Your task to perform on an android device: turn off data saver in the chrome app Image 0: 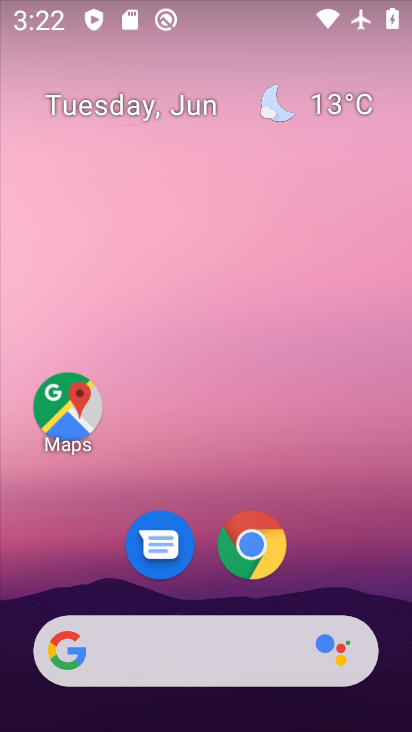
Step 0: drag from (228, 234) to (382, 13)
Your task to perform on an android device: turn off data saver in the chrome app Image 1: 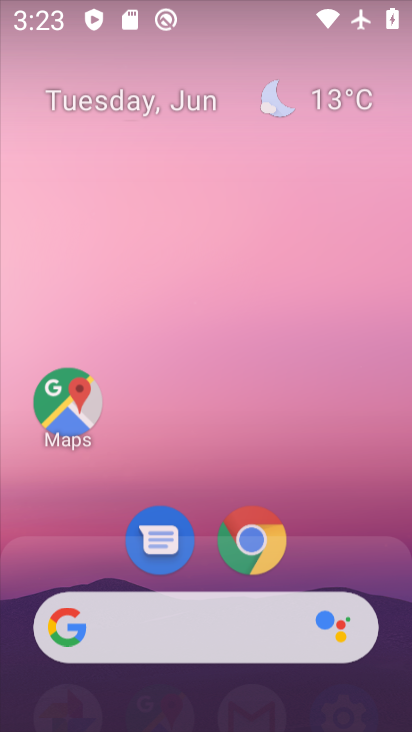
Step 1: drag from (260, 626) to (412, 284)
Your task to perform on an android device: turn off data saver in the chrome app Image 2: 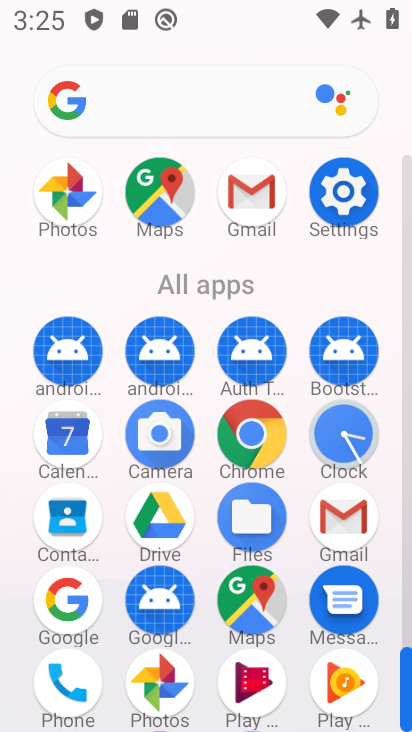
Step 2: click (240, 434)
Your task to perform on an android device: turn off data saver in the chrome app Image 3: 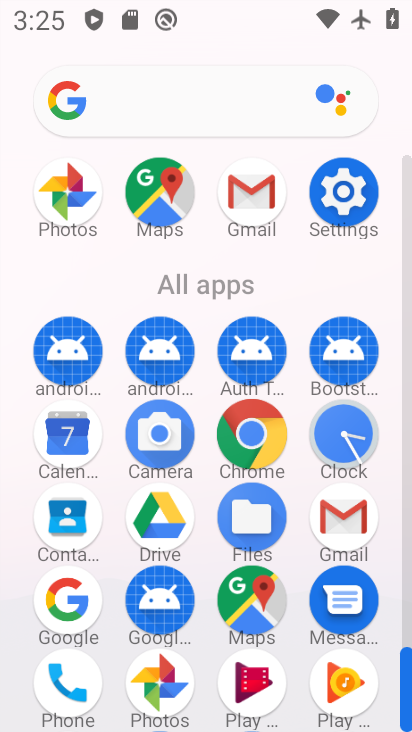
Step 3: click (240, 434)
Your task to perform on an android device: turn off data saver in the chrome app Image 4: 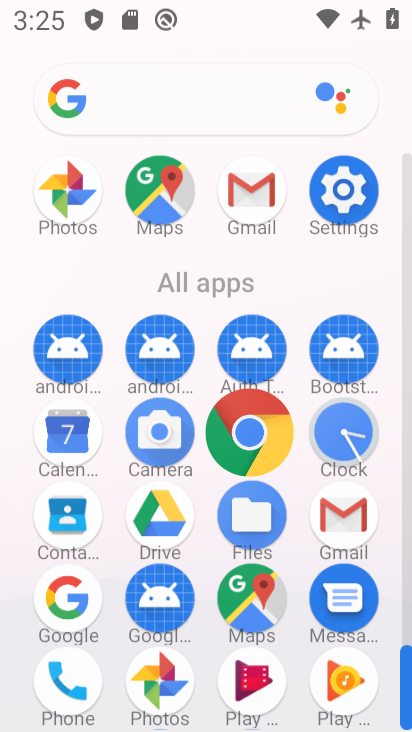
Step 4: click (241, 435)
Your task to perform on an android device: turn off data saver in the chrome app Image 5: 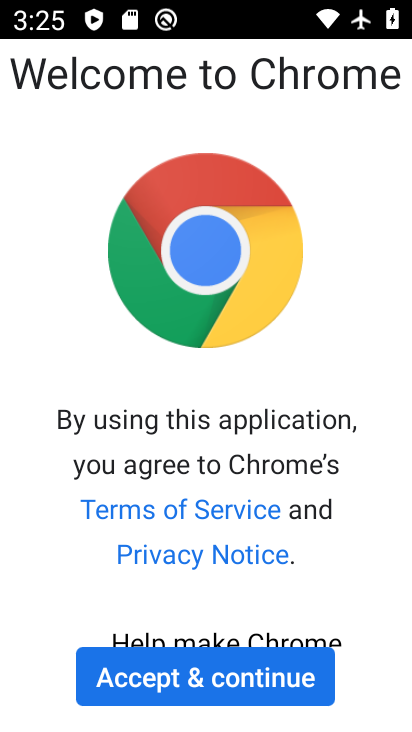
Step 5: click (226, 681)
Your task to perform on an android device: turn off data saver in the chrome app Image 6: 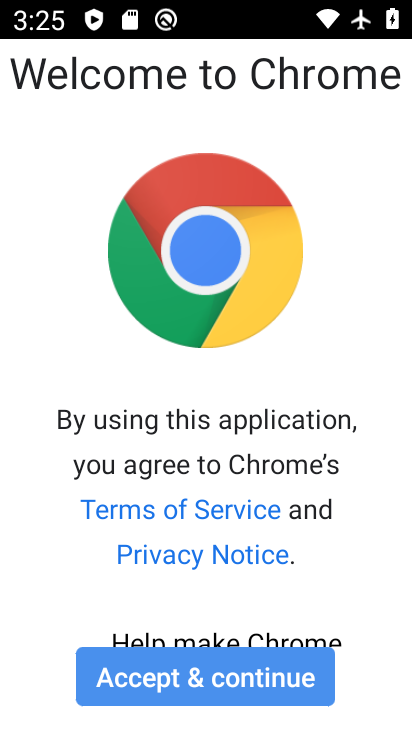
Step 6: click (226, 681)
Your task to perform on an android device: turn off data saver in the chrome app Image 7: 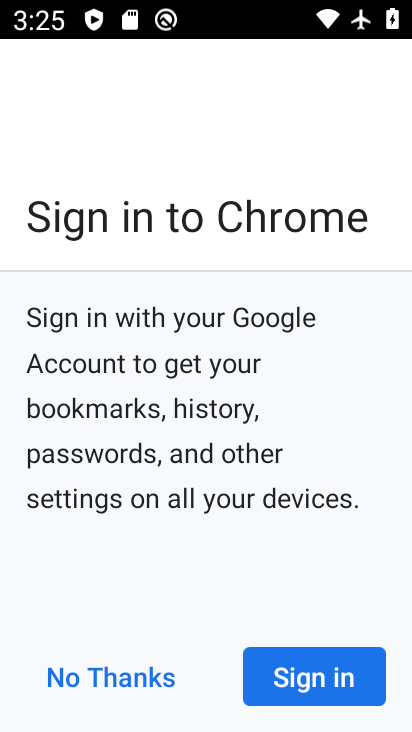
Step 7: click (226, 681)
Your task to perform on an android device: turn off data saver in the chrome app Image 8: 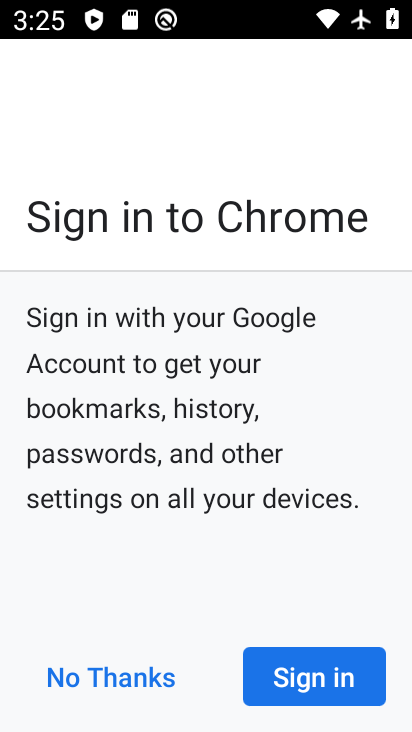
Step 8: click (226, 681)
Your task to perform on an android device: turn off data saver in the chrome app Image 9: 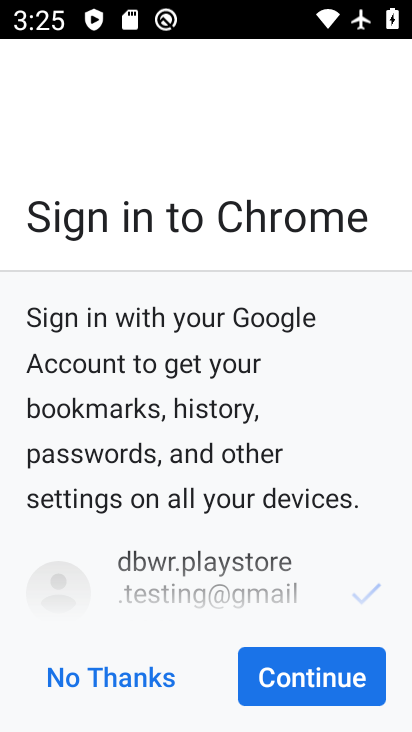
Step 9: click (227, 682)
Your task to perform on an android device: turn off data saver in the chrome app Image 10: 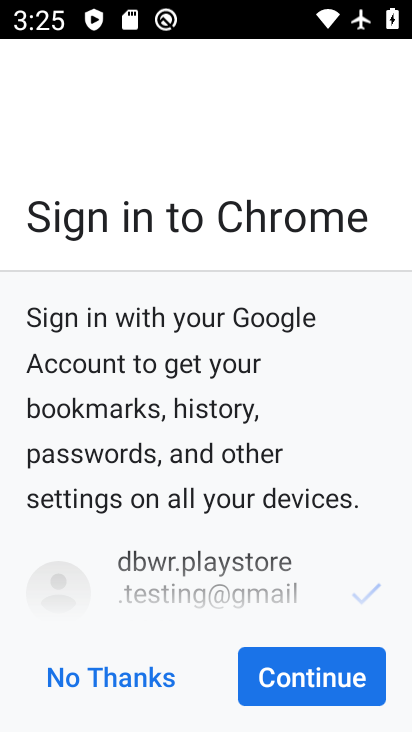
Step 10: click (227, 682)
Your task to perform on an android device: turn off data saver in the chrome app Image 11: 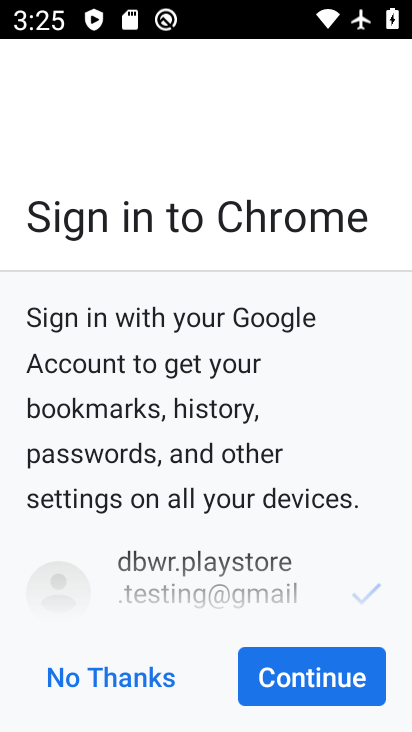
Step 11: click (292, 670)
Your task to perform on an android device: turn off data saver in the chrome app Image 12: 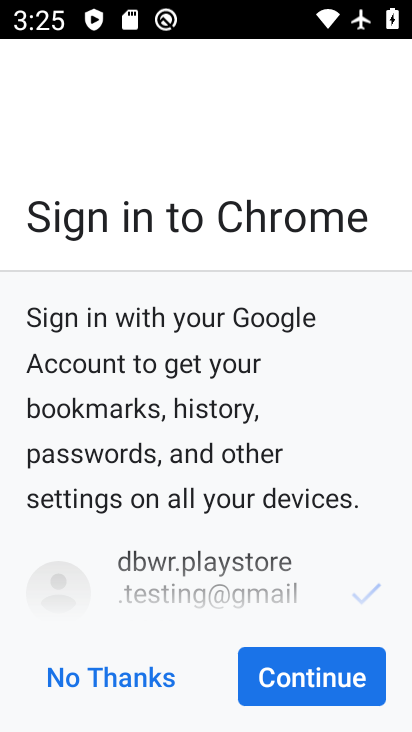
Step 12: click (337, 697)
Your task to perform on an android device: turn off data saver in the chrome app Image 13: 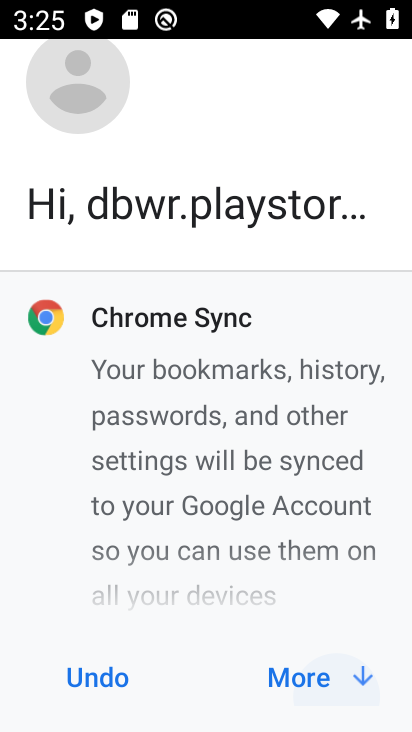
Step 13: click (341, 691)
Your task to perform on an android device: turn off data saver in the chrome app Image 14: 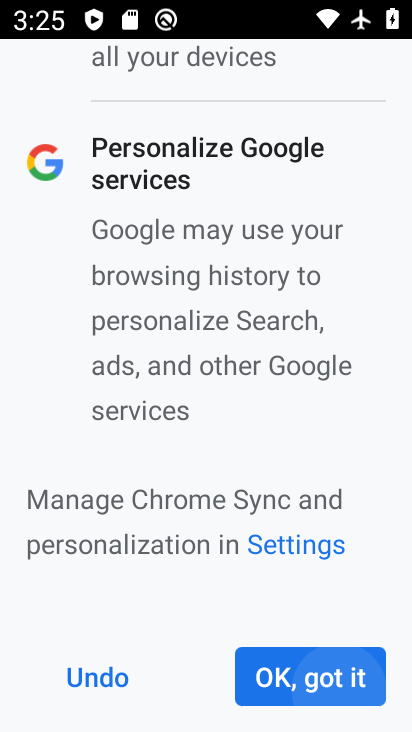
Step 14: click (346, 691)
Your task to perform on an android device: turn off data saver in the chrome app Image 15: 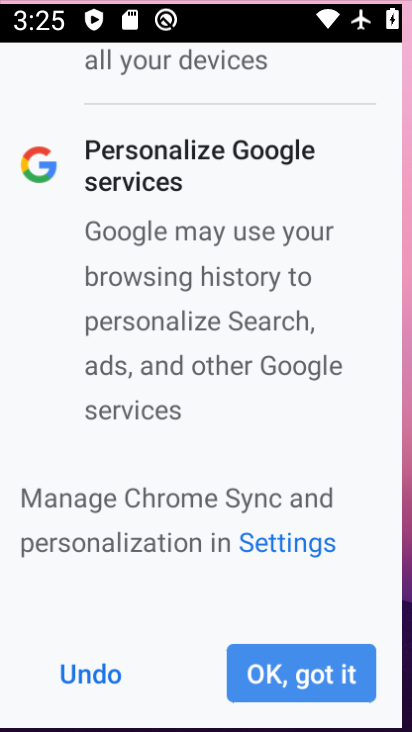
Step 15: click (344, 688)
Your task to perform on an android device: turn off data saver in the chrome app Image 16: 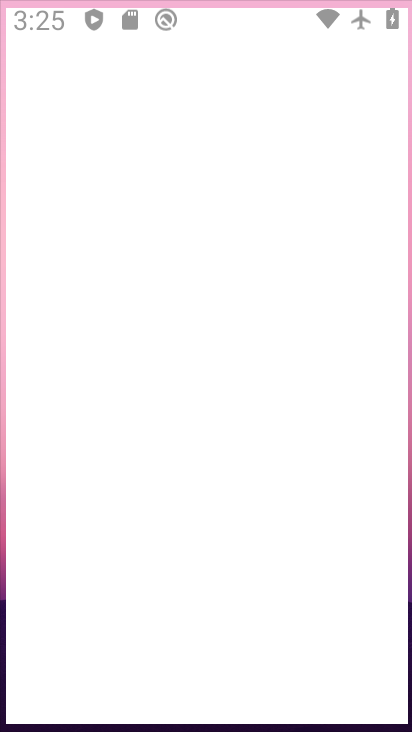
Step 16: click (341, 683)
Your task to perform on an android device: turn off data saver in the chrome app Image 17: 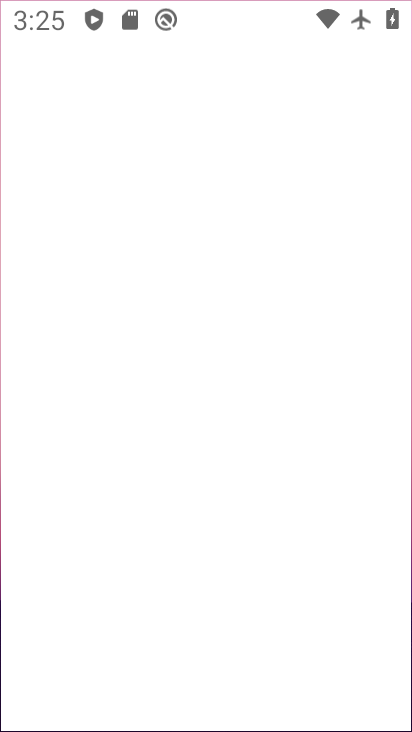
Step 17: click (341, 680)
Your task to perform on an android device: turn off data saver in the chrome app Image 18: 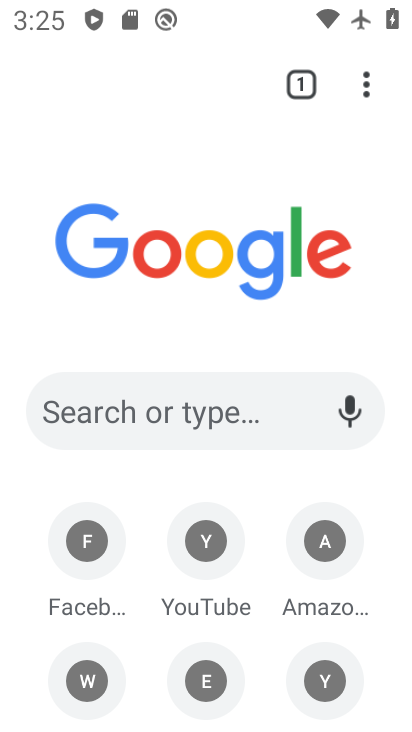
Step 18: drag from (368, 94) to (68, 591)
Your task to perform on an android device: turn off data saver in the chrome app Image 19: 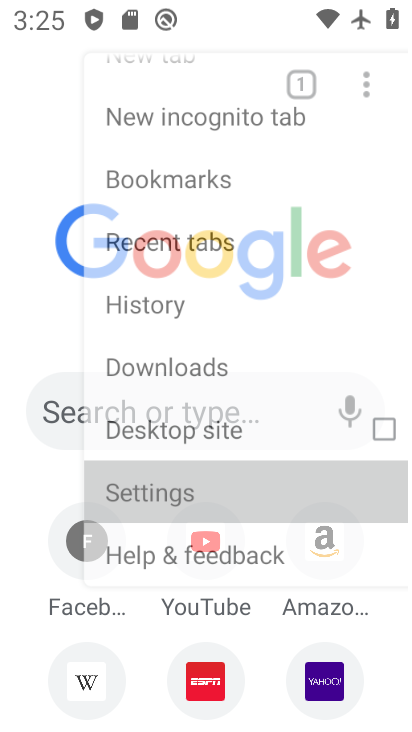
Step 19: click (64, 594)
Your task to perform on an android device: turn off data saver in the chrome app Image 20: 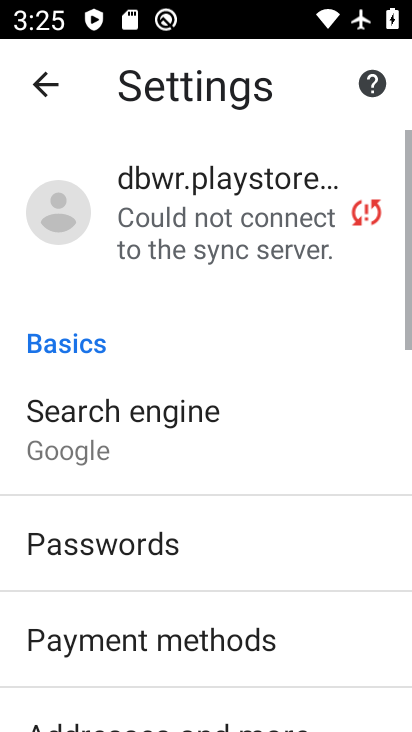
Step 20: click (146, 125)
Your task to perform on an android device: turn off data saver in the chrome app Image 21: 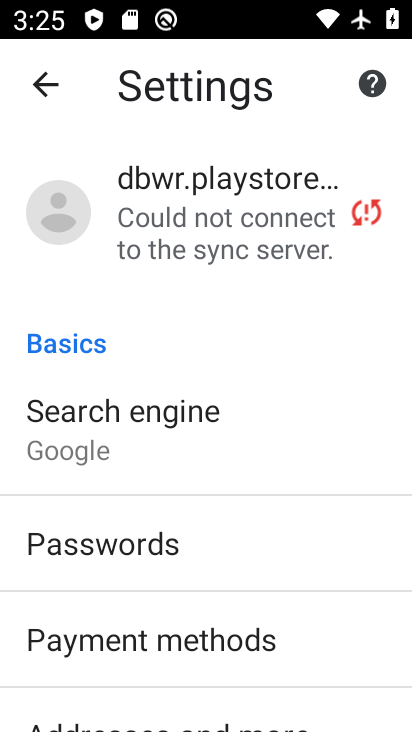
Step 21: drag from (146, 418) to (139, 280)
Your task to perform on an android device: turn off data saver in the chrome app Image 22: 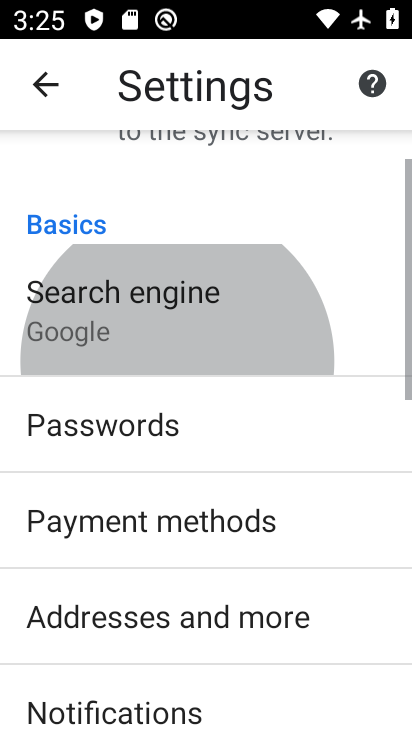
Step 22: drag from (169, 561) to (161, 226)
Your task to perform on an android device: turn off data saver in the chrome app Image 23: 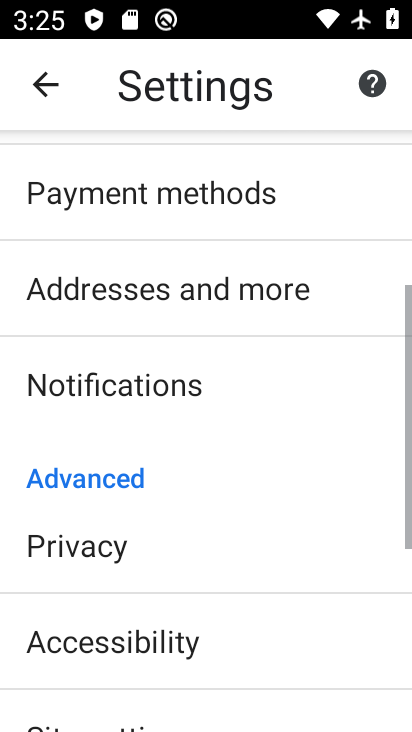
Step 23: drag from (152, 565) to (148, 312)
Your task to perform on an android device: turn off data saver in the chrome app Image 24: 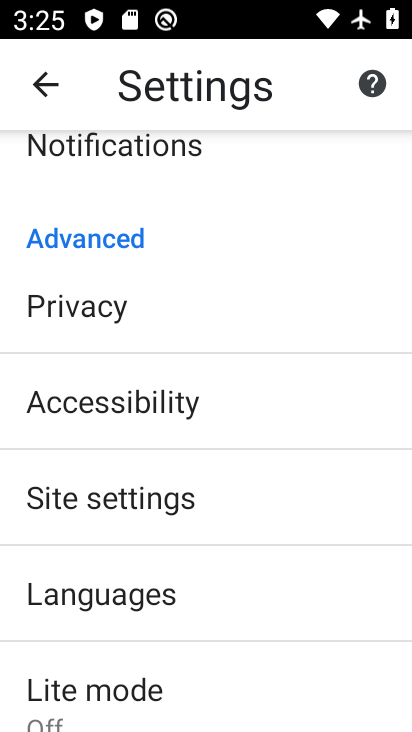
Step 24: click (80, 690)
Your task to perform on an android device: turn off data saver in the chrome app Image 25: 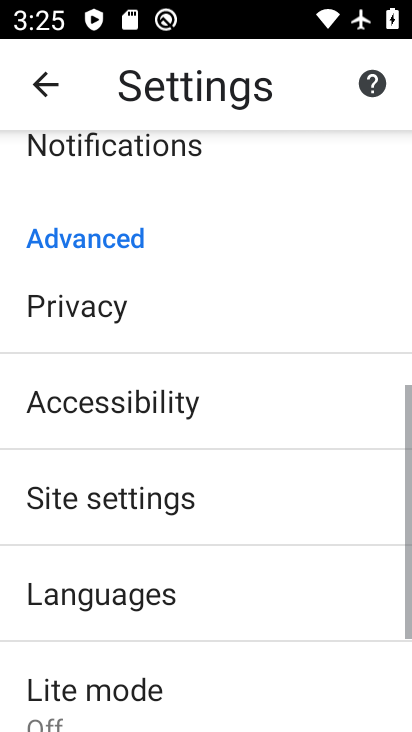
Step 25: click (81, 688)
Your task to perform on an android device: turn off data saver in the chrome app Image 26: 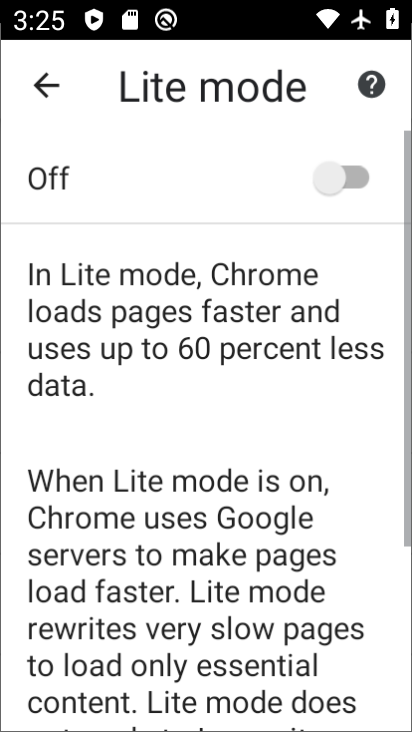
Step 26: click (81, 688)
Your task to perform on an android device: turn off data saver in the chrome app Image 27: 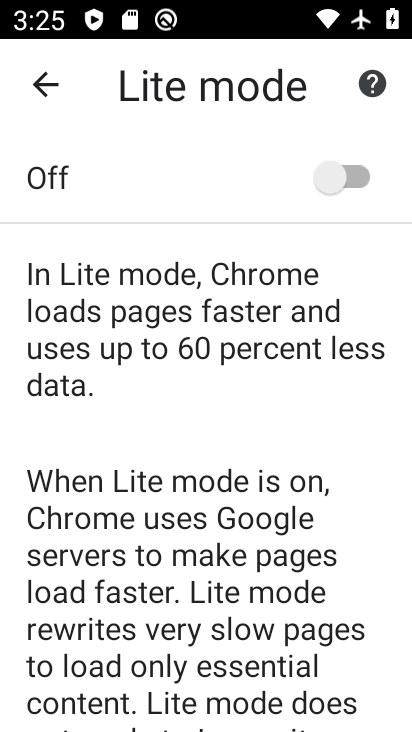
Step 27: task complete